Your task to perform on an android device: toggle data saver in the chrome app Image 0: 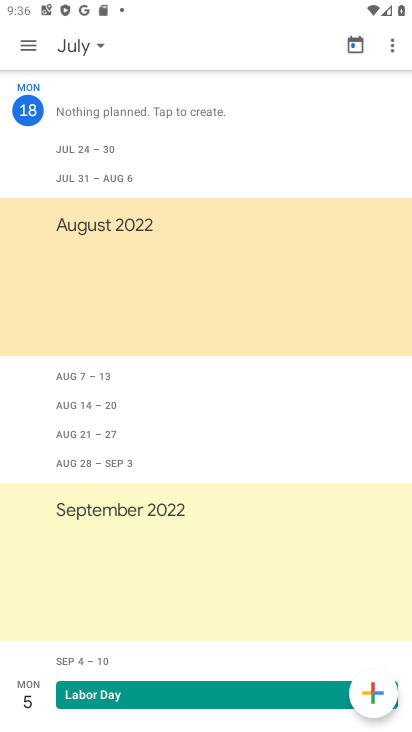
Step 0: press home button
Your task to perform on an android device: toggle data saver in the chrome app Image 1: 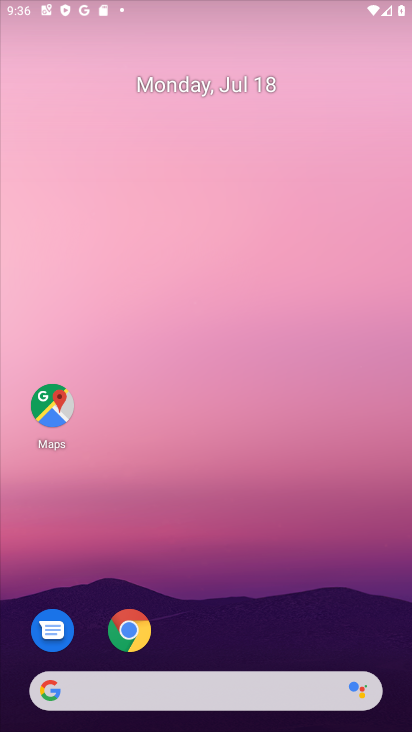
Step 1: drag from (266, 638) to (149, 49)
Your task to perform on an android device: toggle data saver in the chrome app Image 2: 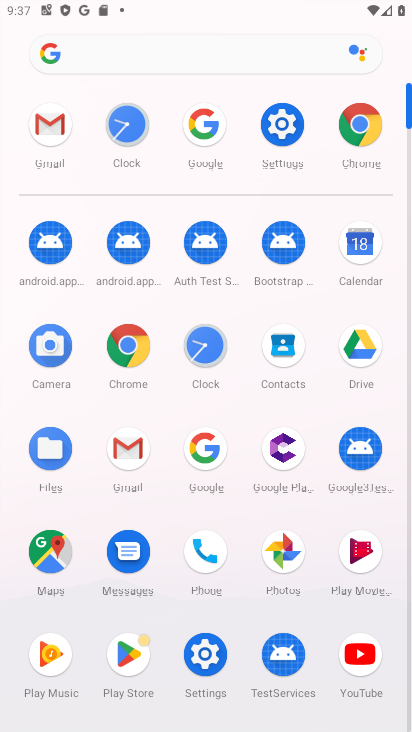
Step 2: click (123, 343)
Your task to perform on an android device: toggle data saver in the chrome app Image 3: 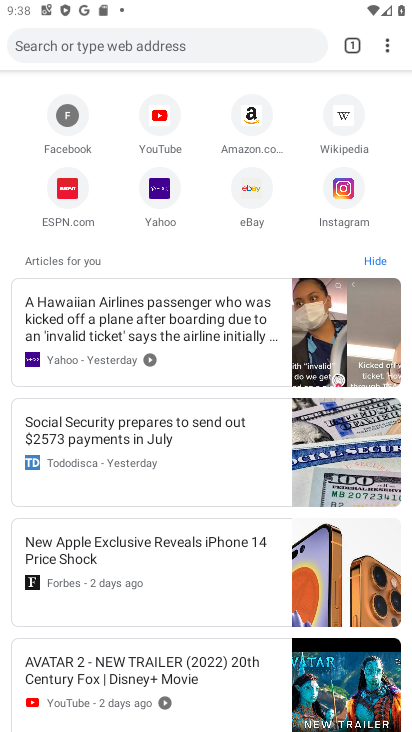
Step 3: click (378, 50)
Your task to perform on an android device: toggle data saver in the chrome app Image 4: 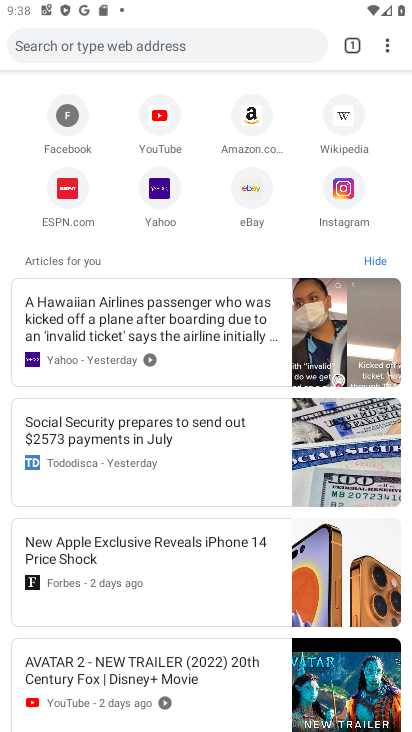
Step 4: click (384, 42)
Your task to perform on an android device: toggle data saver in the chrome app Image 5: 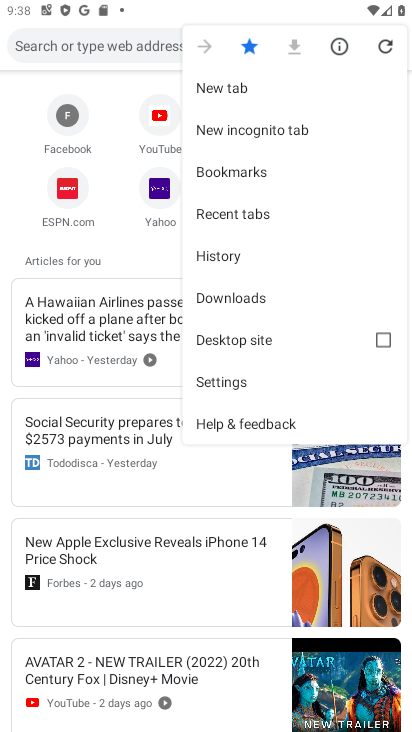
Step 5: click (234, 376)
Your task to perform on an android device: toggle data saver in the chrome app Image 6: 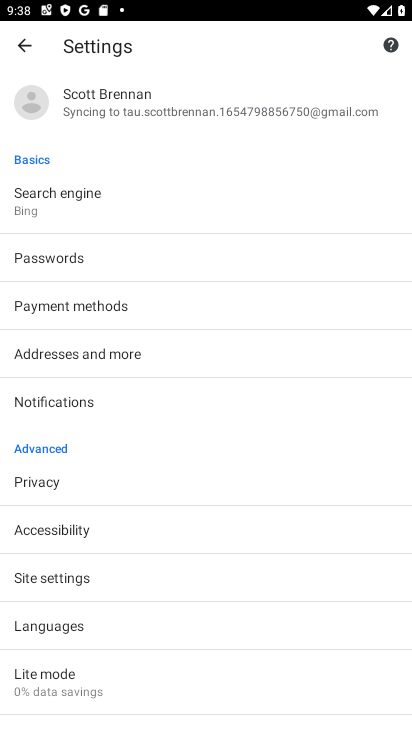
Step 6: click (88, 686)
Your task to perform on an android device: toggle data saver in the chrome app Image 7: 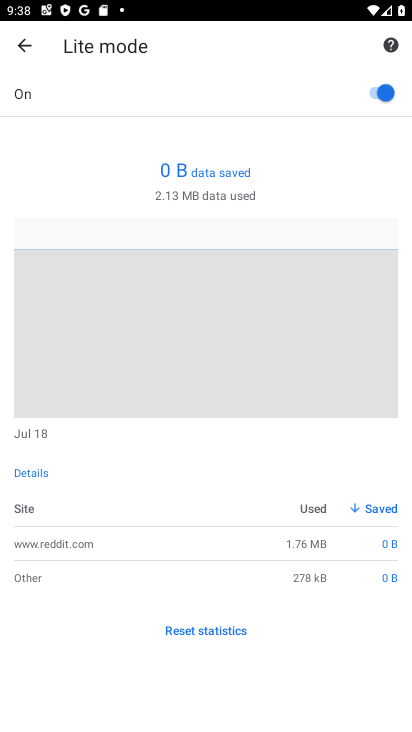
Step 7: click (359, 97)
Your task to perform on an android device: toggle data saver in the chrome app Image 8: 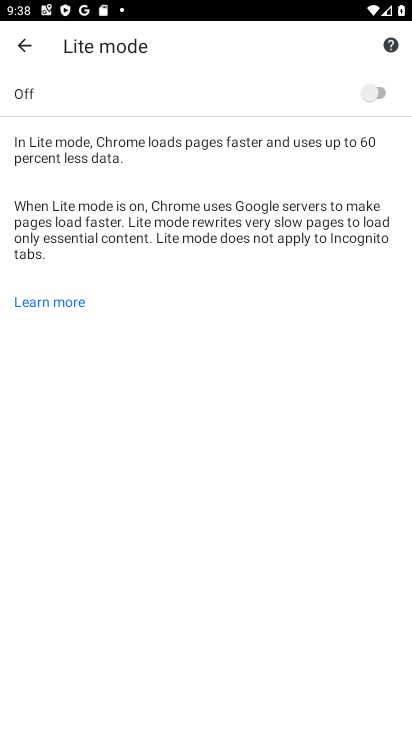
Step 8: task complete